Your task to perform on an android device: What is the news today? Image 0: 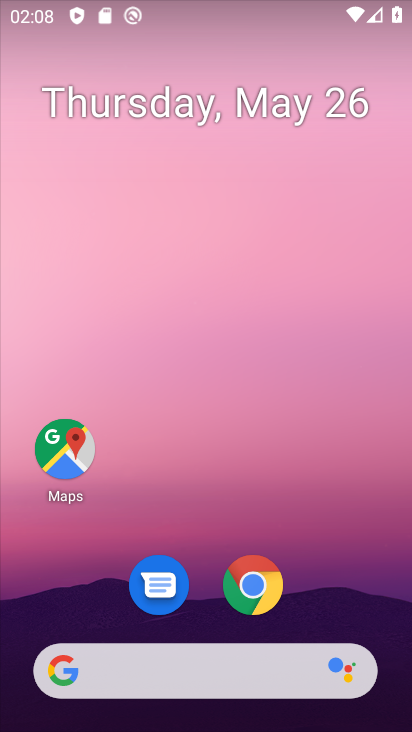
Step 0: click (211, 686)
Your task to perform on an android device: What is the news today? Image 1: 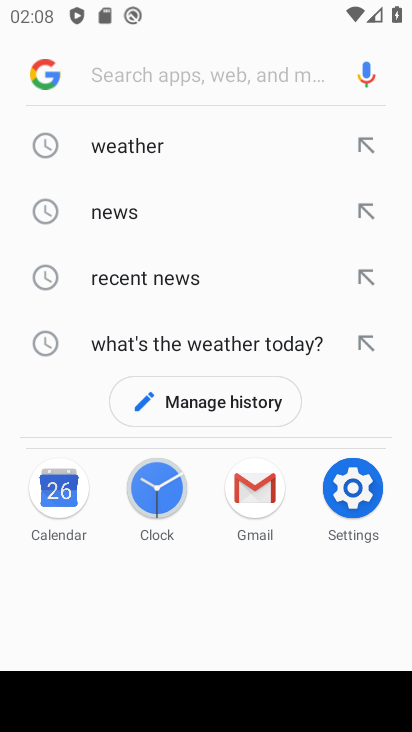
Step 1: click (124, 208)
Your task to perform on an android device: What is the news today? Image 2: 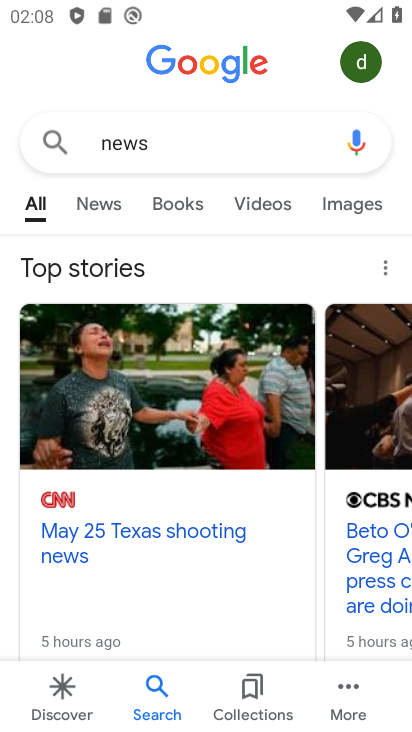
Step 2: click (114, 206)
Your task to perform on an android device: What is the news today? Image 3: 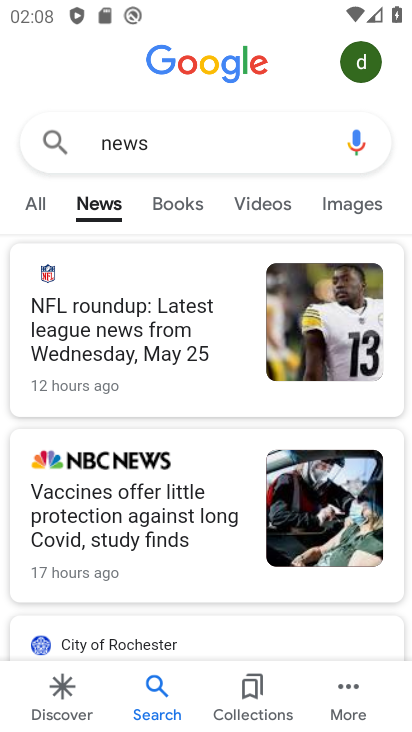
Step 3: task complete